Your task to perform on an android device: delete location history Image 0: 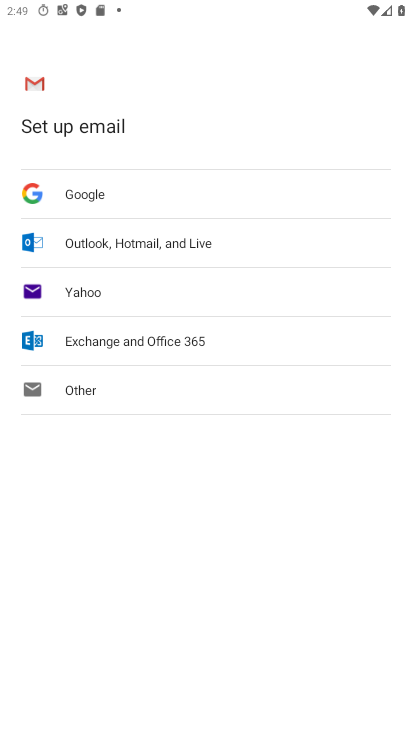
Step 0: press home button
Your task to perform on an android device: delete location history Image 1: 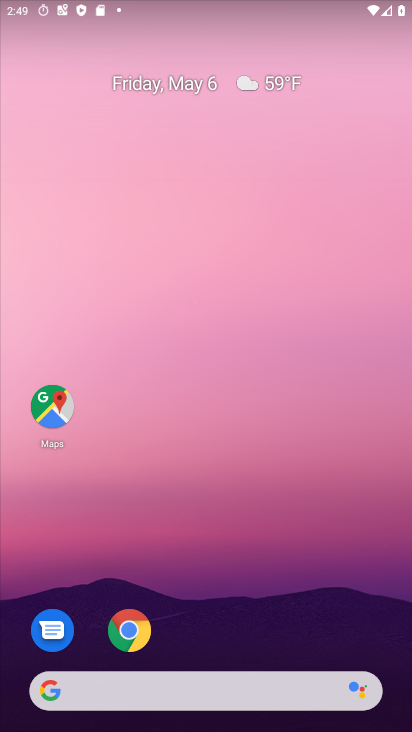
Step 1: drag from (243, 652) to (237, 178)
Your task to perform on an android device: delete location history Image 2: 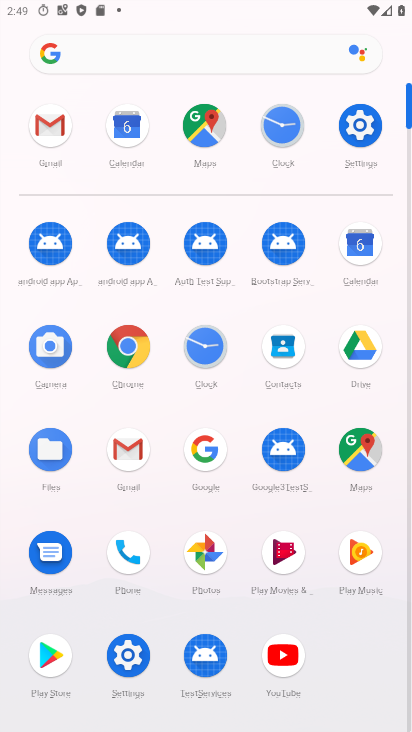
Step 2: click (348, 140)
Your task to perform on an android device: delete location history Image 3: 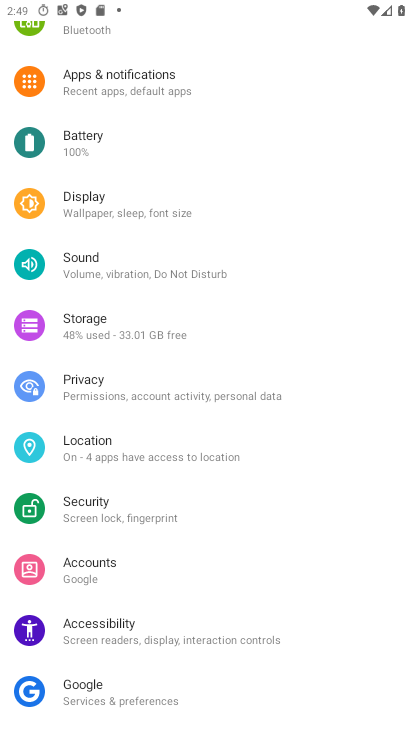
Step 3: press home button
Your task to perform on an android device: delete location history Image 4: 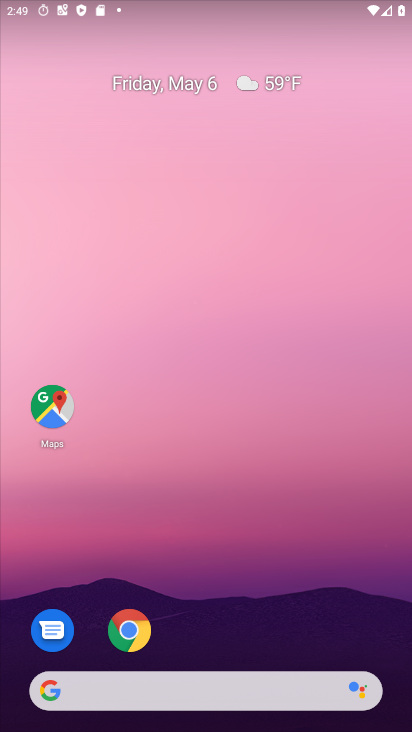
Step 4: click (61, 410)
Your task to perform on an android device: delete location history Image 5: 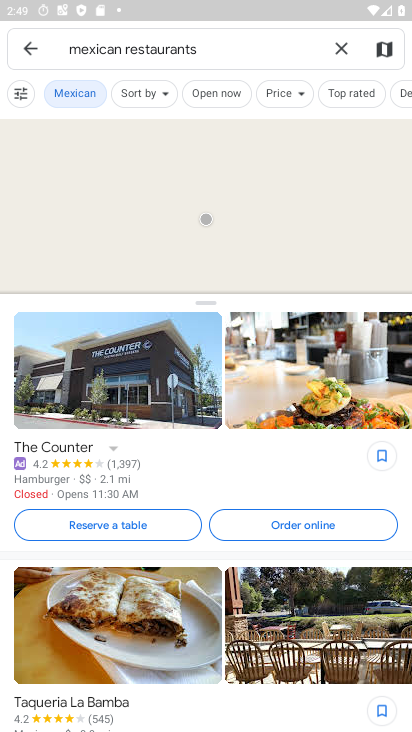
Step 5: click (344, 44)
Your task to perform on an android device: delete location history Image 6: 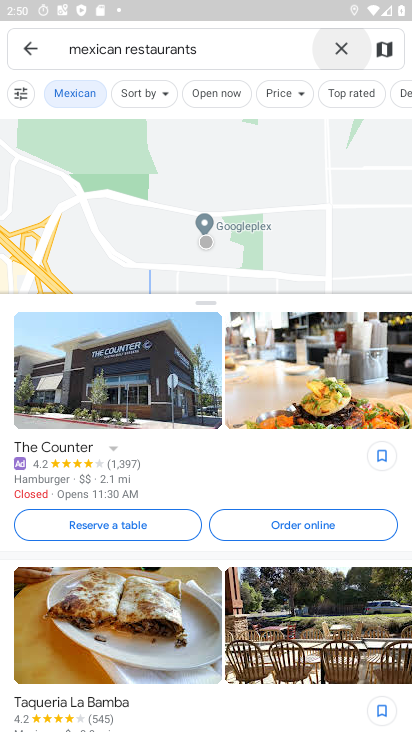
Step 6: click (32, 51)
Your task to perform on an android device: delete location history Image 7: 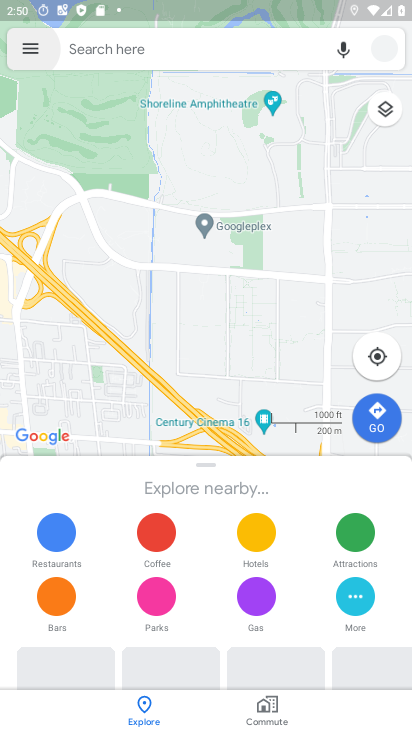
Step 7: click (32, 51)
Your task to perform on an android device: delete location history Image 8: 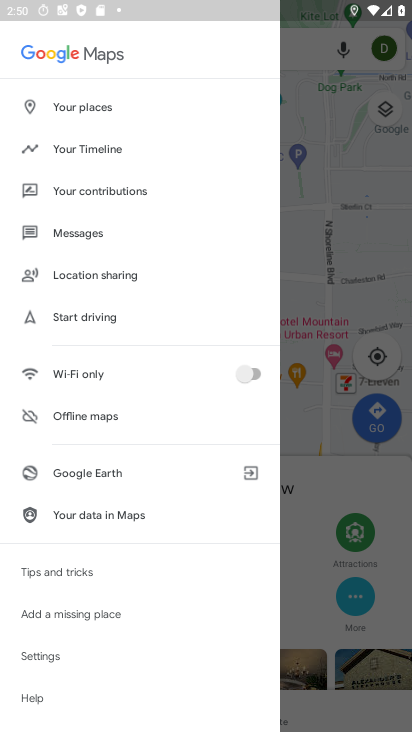
Step 8: click (79, 142)
Your task to perform on an android device: delete location history Image 9: 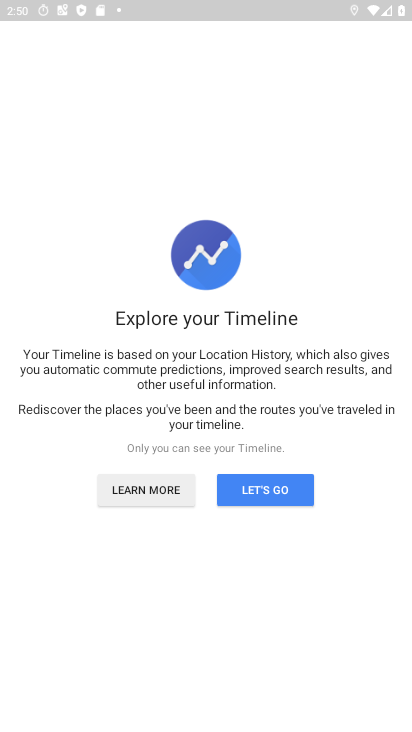
Step 9: click (240, 489)
Your task to perform on an android device: delete location history Image 10: 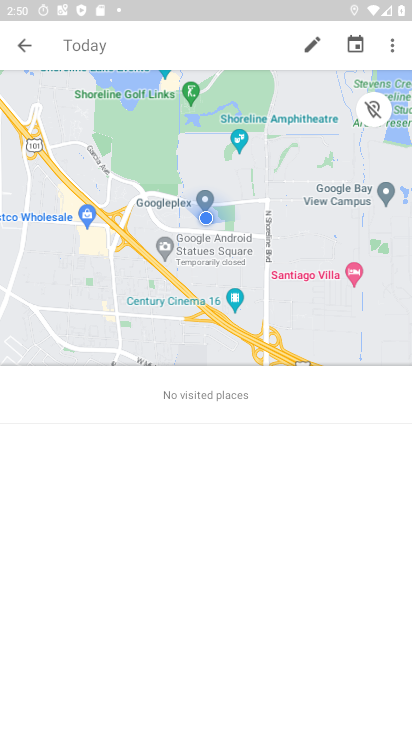
Step 10: click (387, 41)
Your task to perform on an android device: delete location history Image 11: 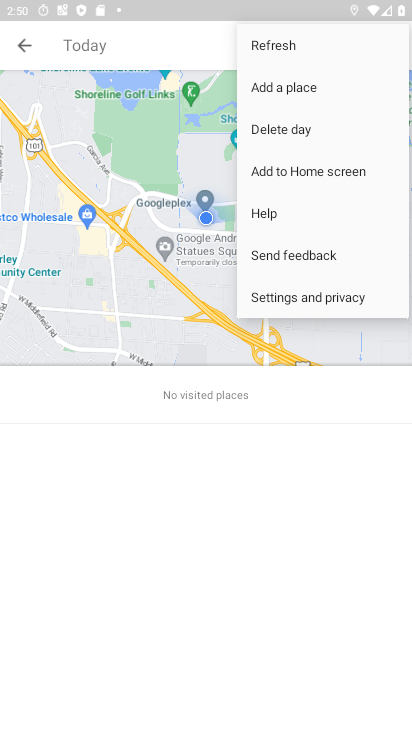
Step 11: click (297, 304)
Your task to perform on an android device: delete location history Image 12: 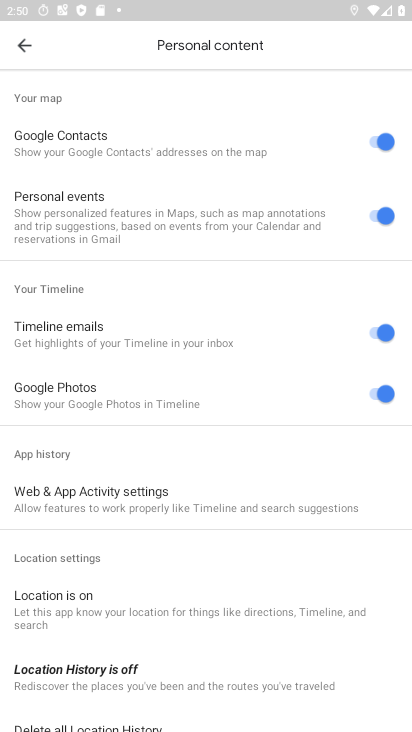
Step 12: drag from (182, 649) to (204, 425)
Your task to perform on an android device: delete location history Image 13: 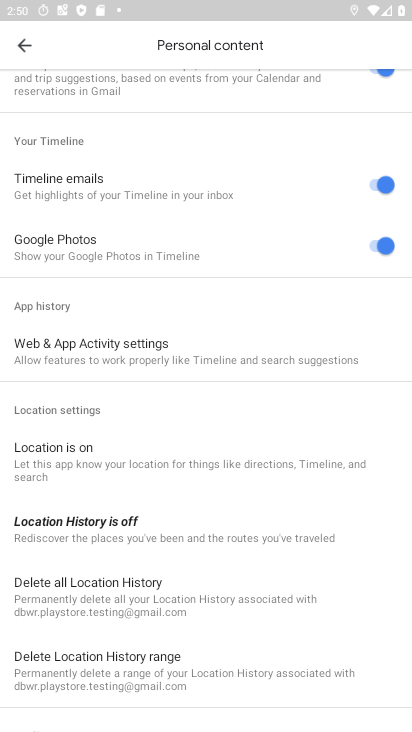
Step 13: click (153, 593)
Your task to perform on an android device: delete location history Image 14: 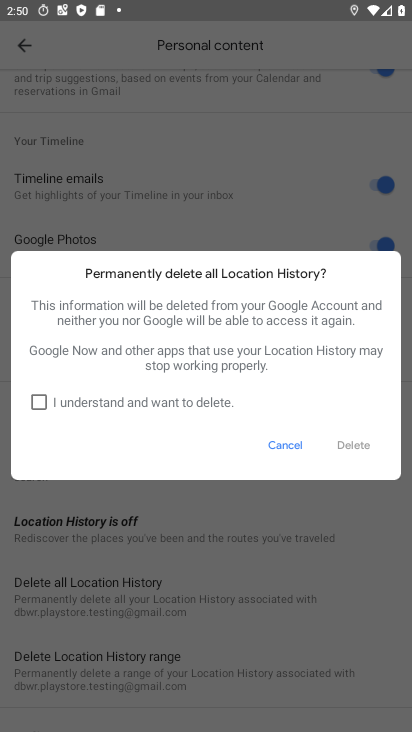
Step 14: click (47, 405)
Your task to perform on an android device: delete location history Image 15: 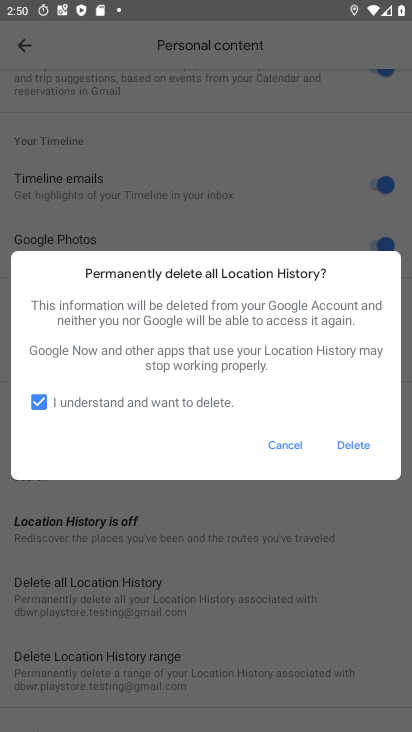
Step 15: click (346, 446)
Your task to perform on an android device: delete location history Image 16: 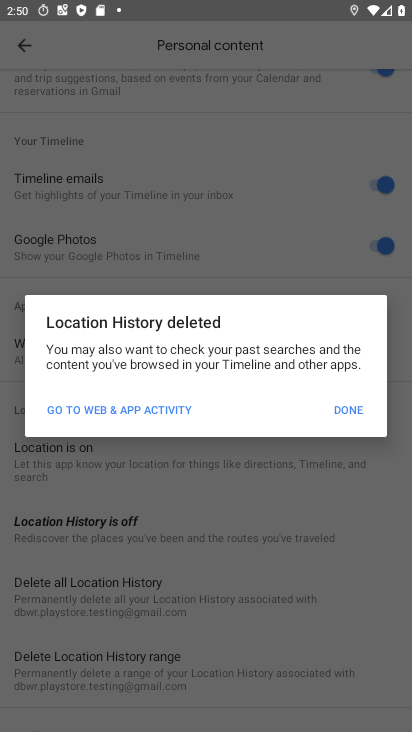
Step 16: click (336, 410)
Your task to perform on an android device: delete location history Image 17: 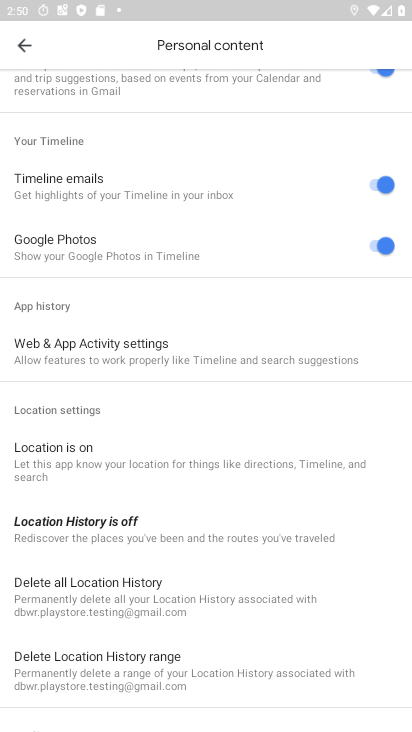
Step 17: task complete